Your task to perform on an android device: What's the weather? Image 0: 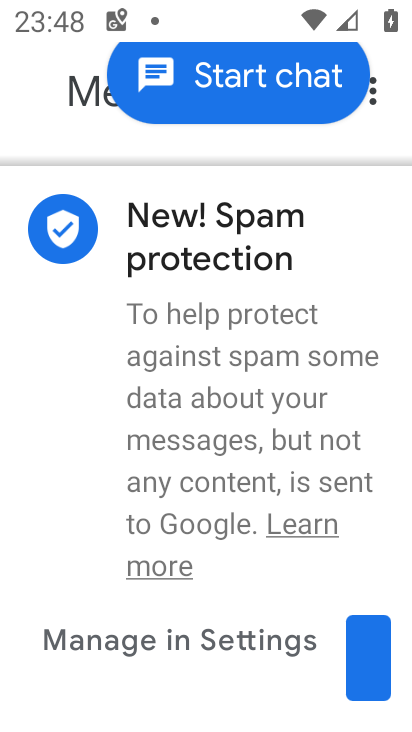
Step 0: press home button
Your task to perform on an android device: What's the weather? Image 1: 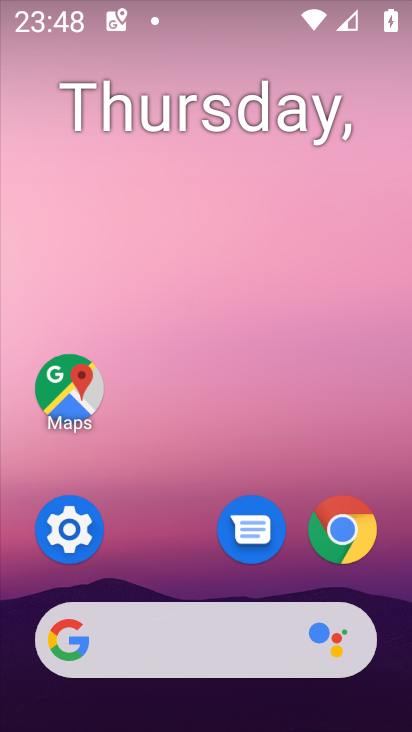
Step 1: click (197, 658)
Your task to perform on an android device: What's the weather? Image 2: 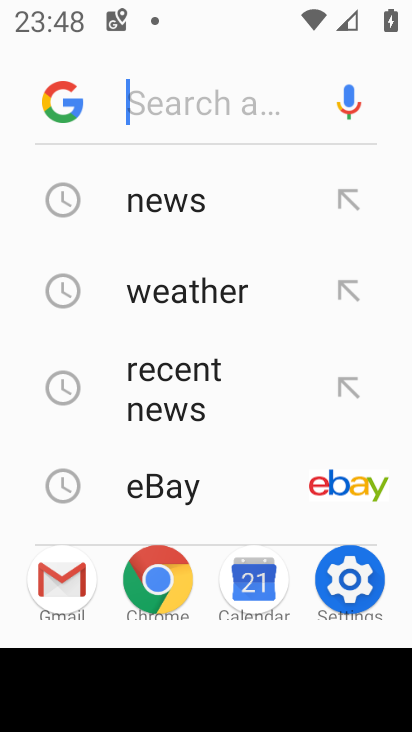
Step 2: click (217, 291)
Your task to perform on an android device: What's the weather? Image 3: 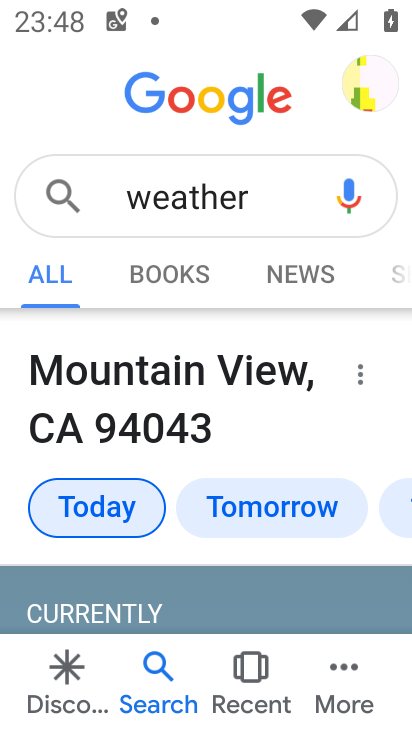
Step 3: task complete